Your task to perform on an android device: check android version Image 0: 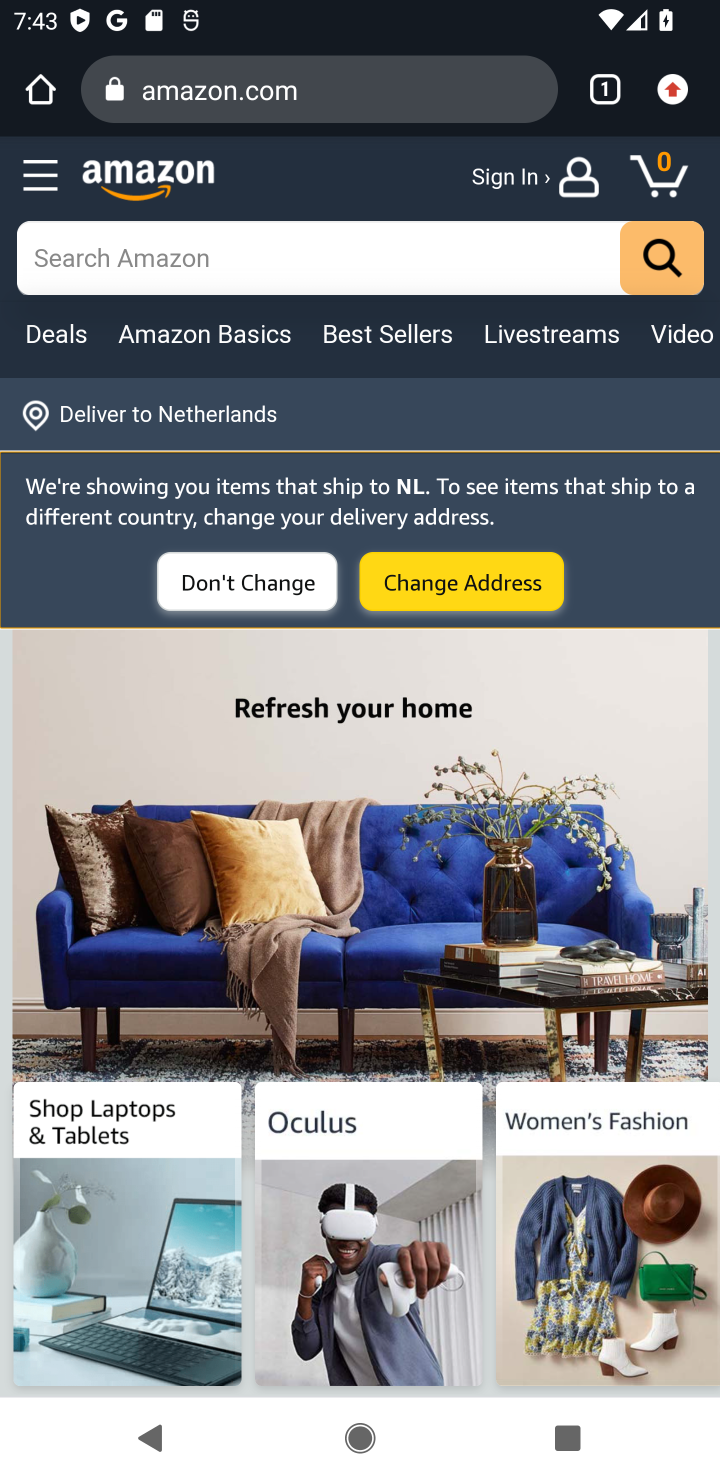
Step 0: press home button
Your task to perform on an android device: check android version Image 1: 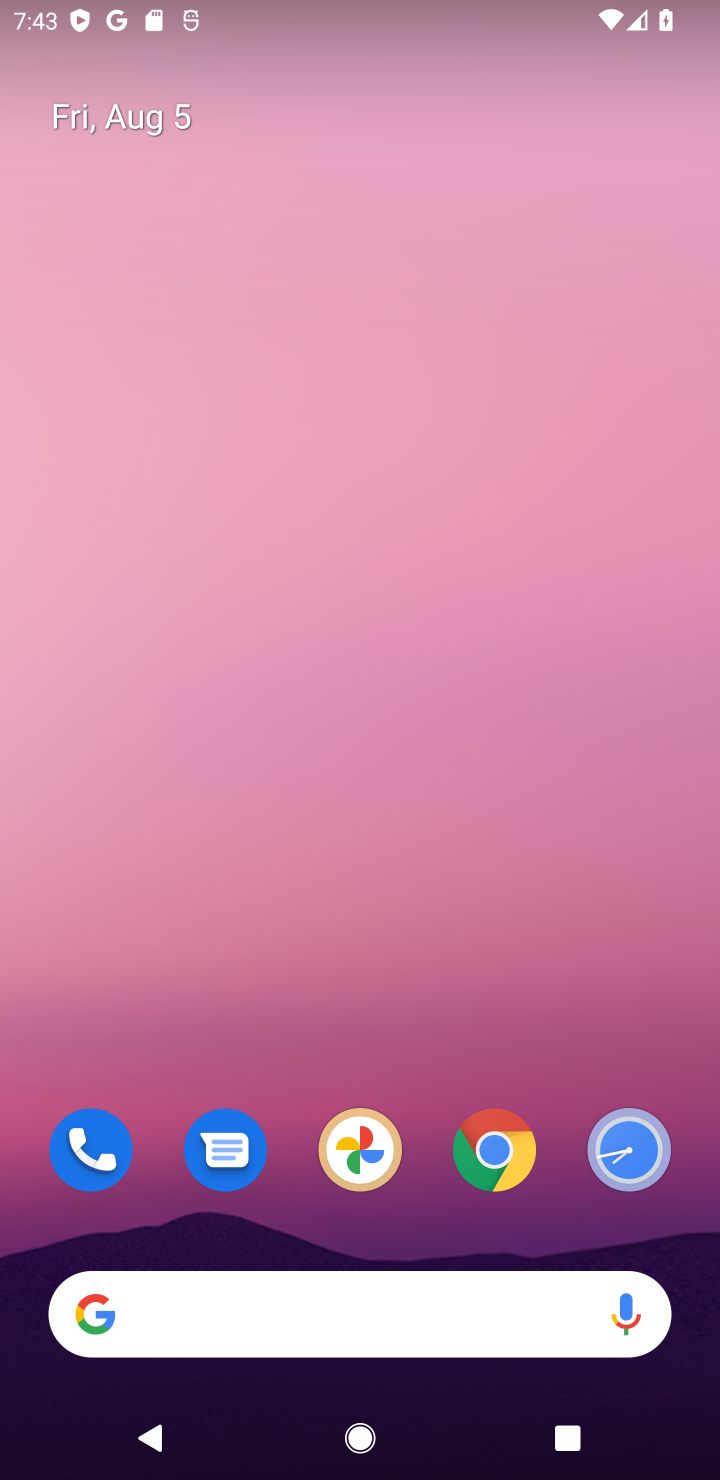
Step 1: drag from (418, 1057) to (461, 276)
Your task to perform on an android device: check android version Image 2: 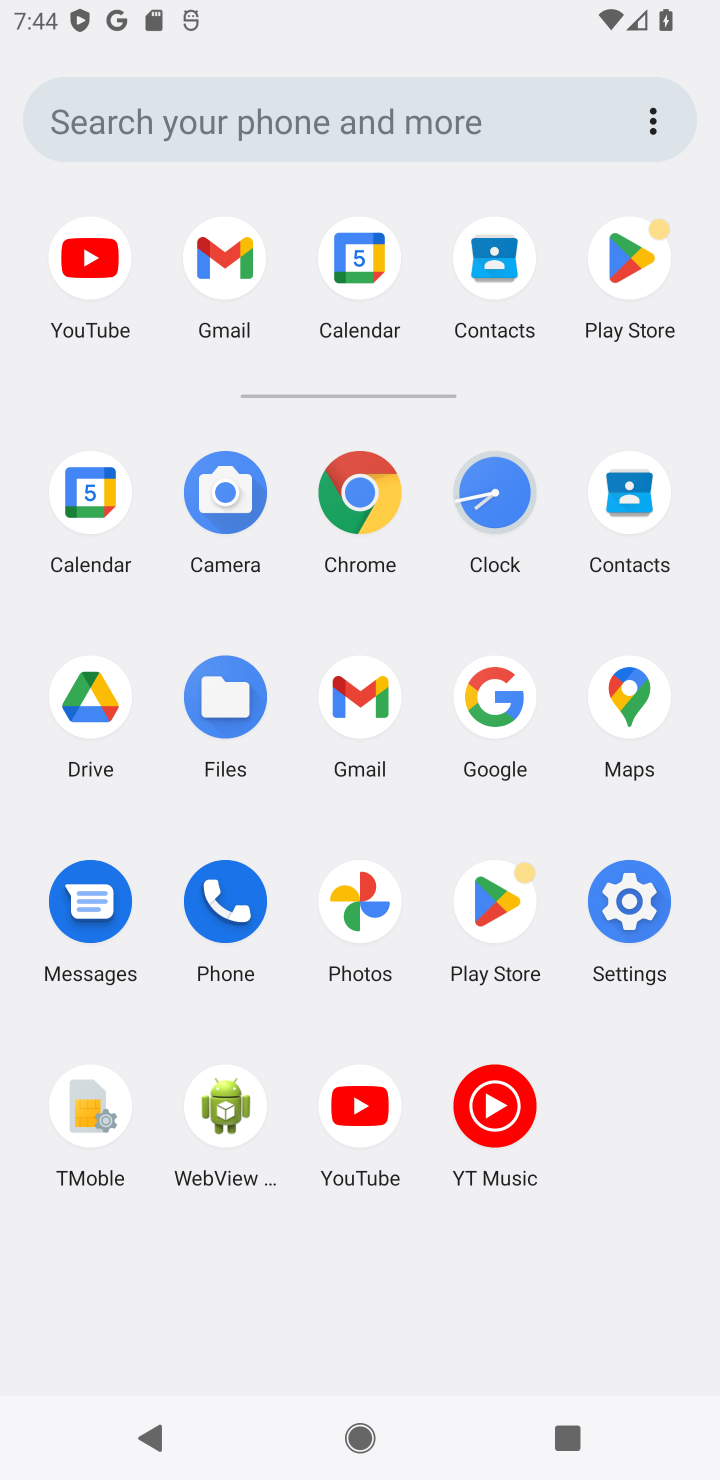
Step 2: click (630, 912)
Your task to perform on an android device: check android version Image 3: 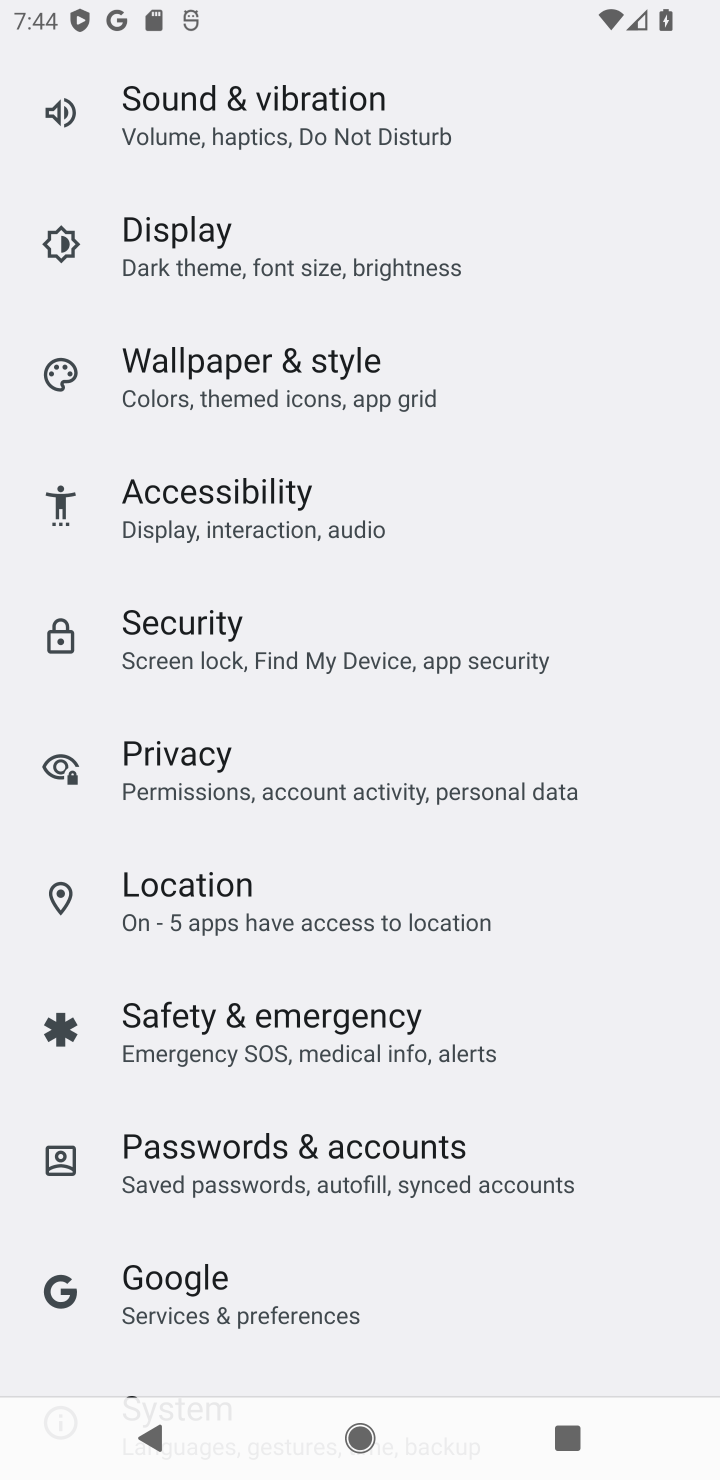
Step 3: drag from (568, 1068) to (620, 812)
Your task to perform on an android device: check android version Image 4: 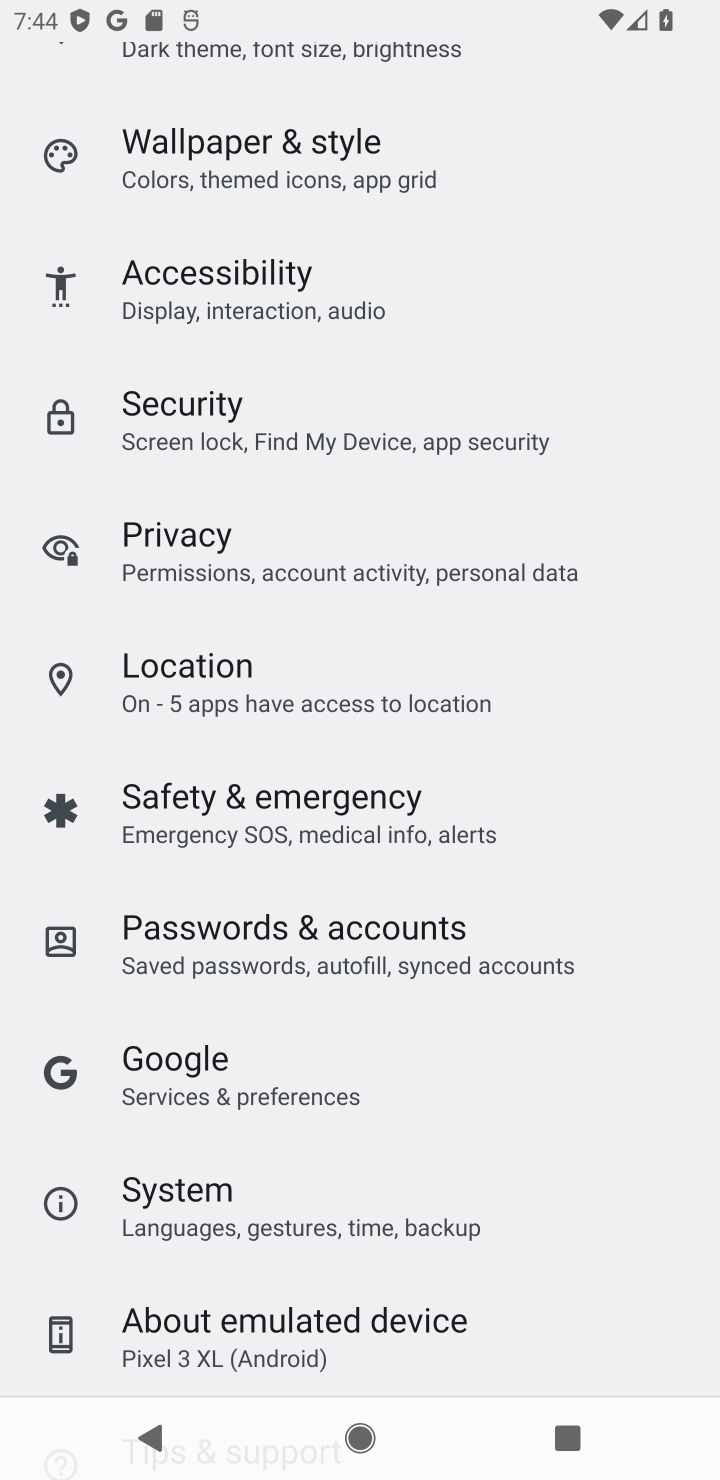
Step 4: drag from (564, 1136) to (599, 809)
Your task to perform on an android device: check android version Image 5: 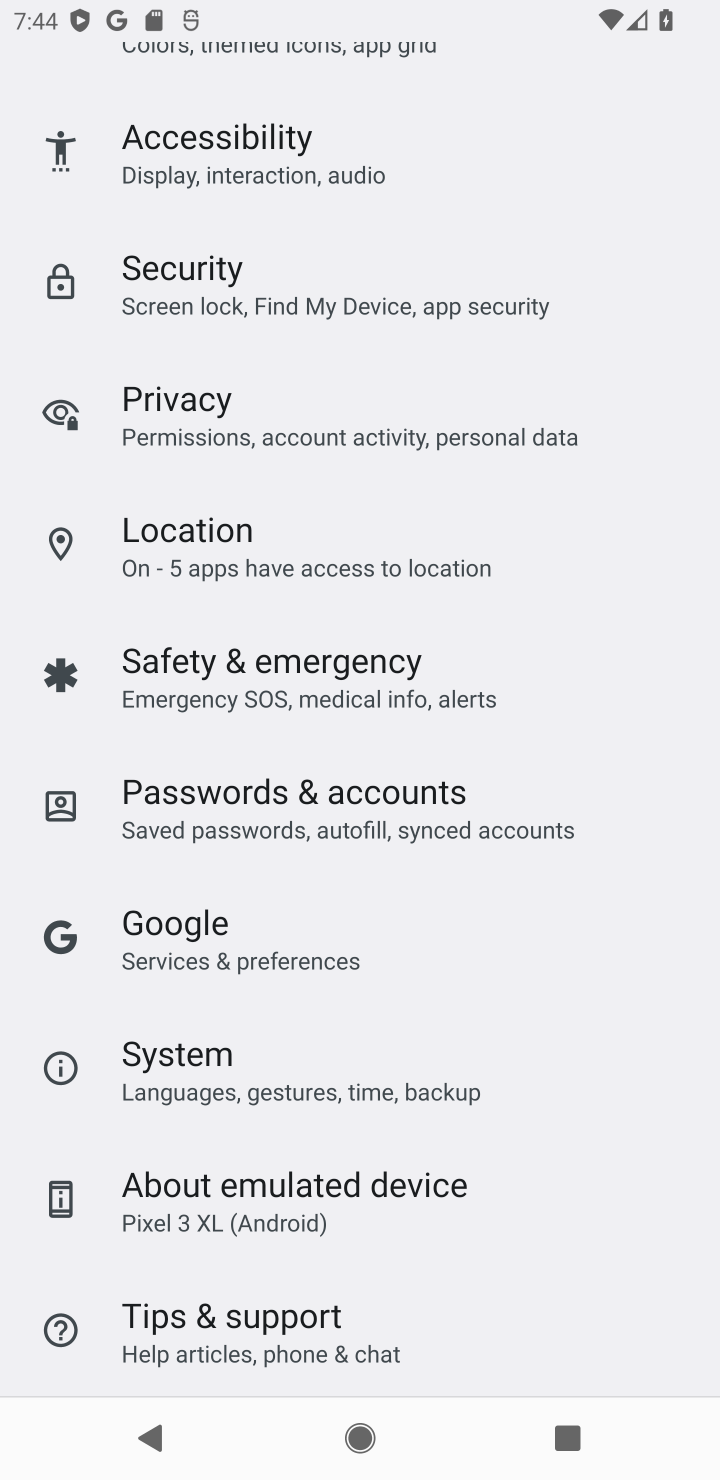
Step 5: drag from (592, 1197) to (592, 809)
Your task to perform on an android device: check android version Image 6: 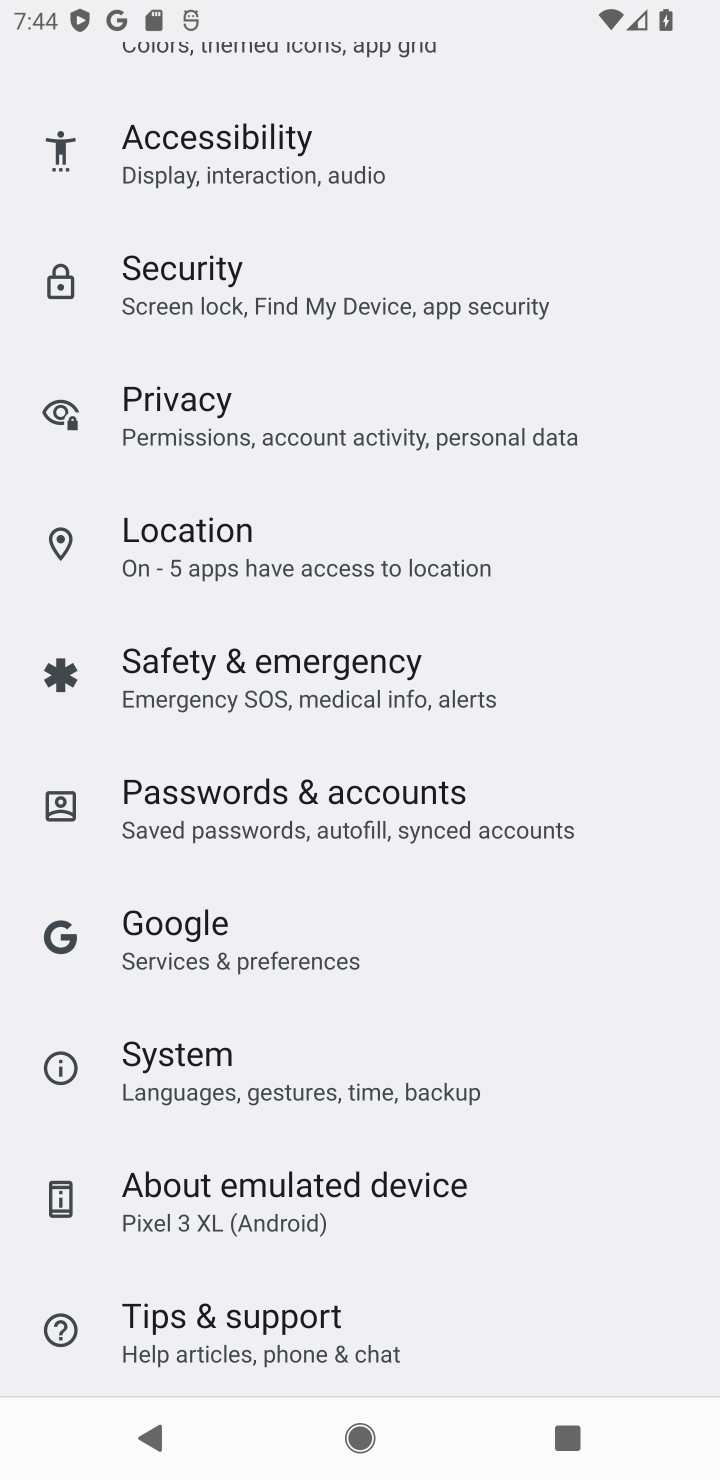
Step 6: click (339, 1060)
Your task to perform on an android device: check android version Image 7: 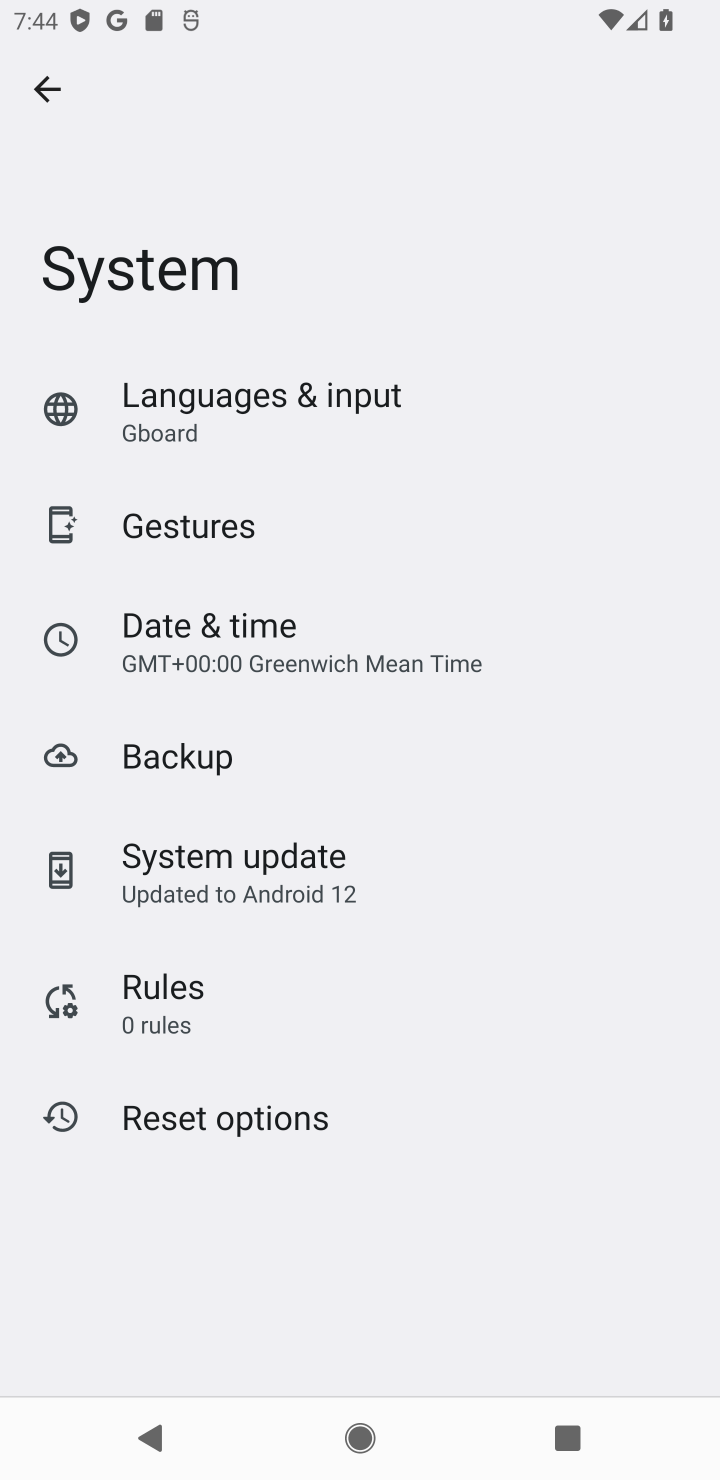
Step 7: click (190, 849)
Your task to perform on an android device: check android version Image 8: 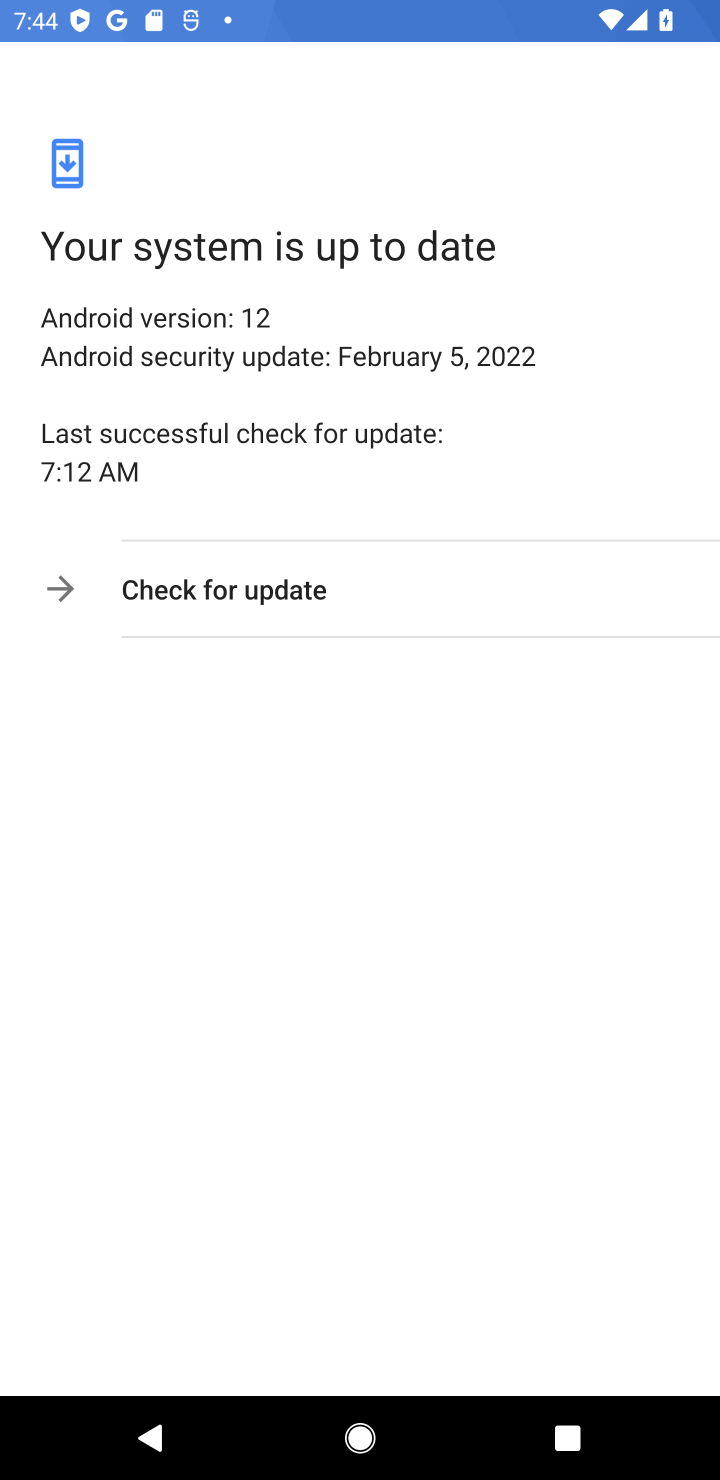
Step 8: task complete